Your task to perform on an android device: stop showing notifications on the lock screen Image 0: 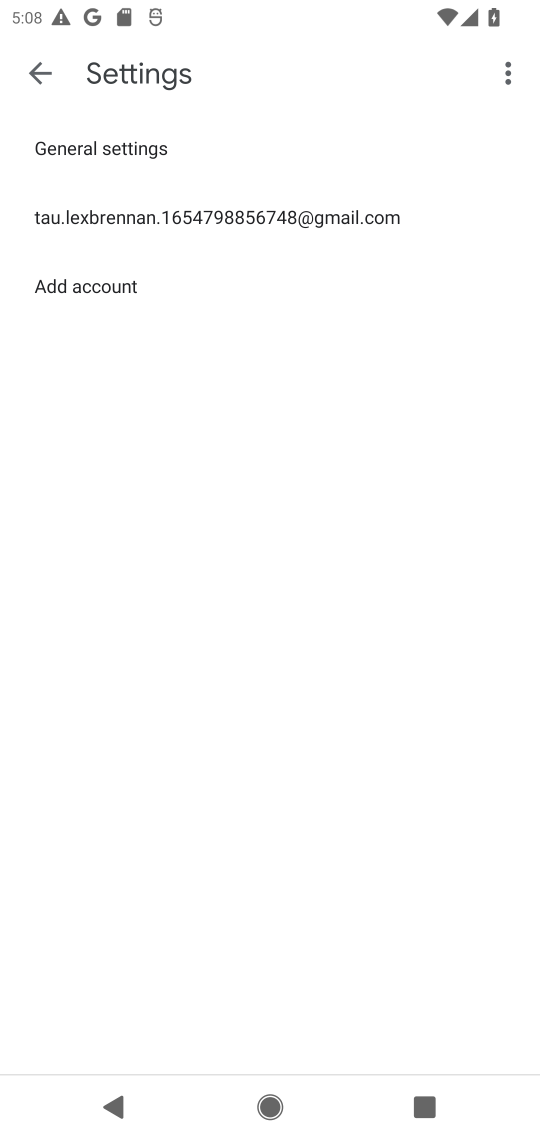
Step 0: press home button
Your task to perform on an android device: stop showing notifications on the lock screen Image 1: 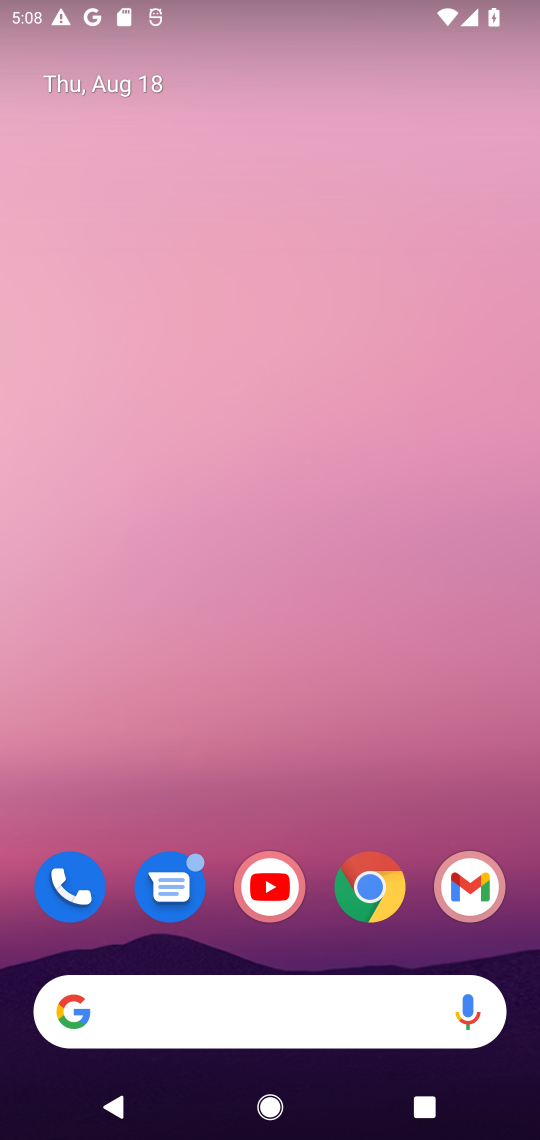
Step 1: drag from (335, 778) to (385, 298)
Your task to perform on an android device: stop showing notifications on the lock screen Image 2: 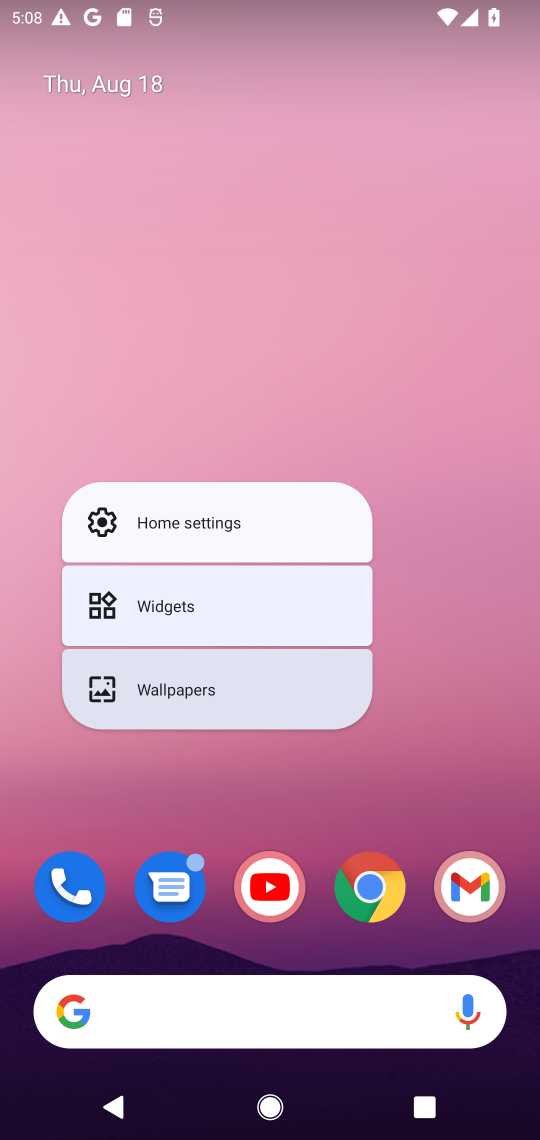
Step 2: click (415, 706)
Your task to perform on an android device: stop showing notifications on the lock screen Image 3: 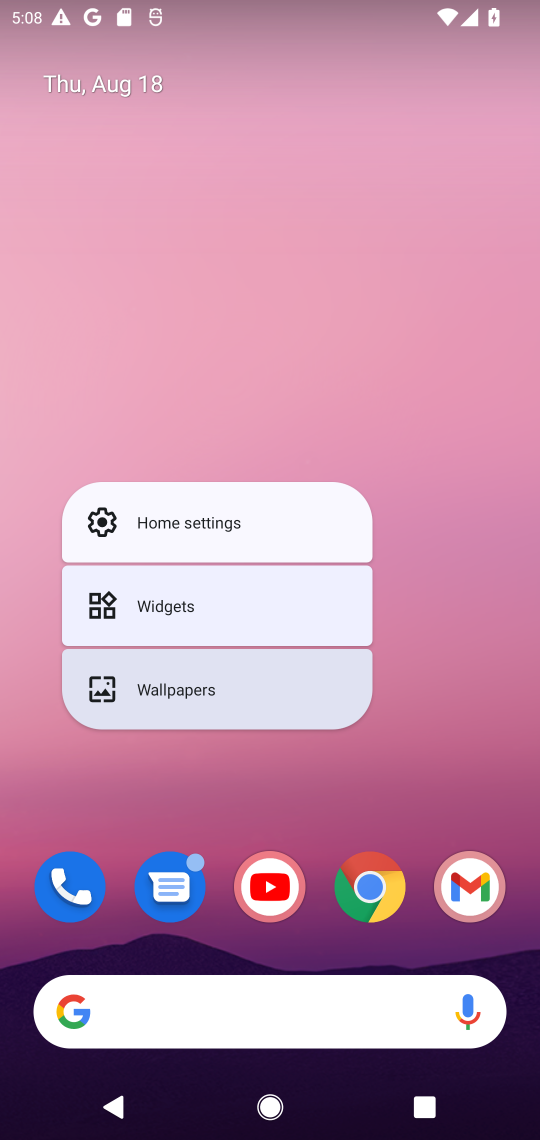
Step 3: task complete